Your task to perform on an android device: Search for Italian restaurants on Maps Image 0: 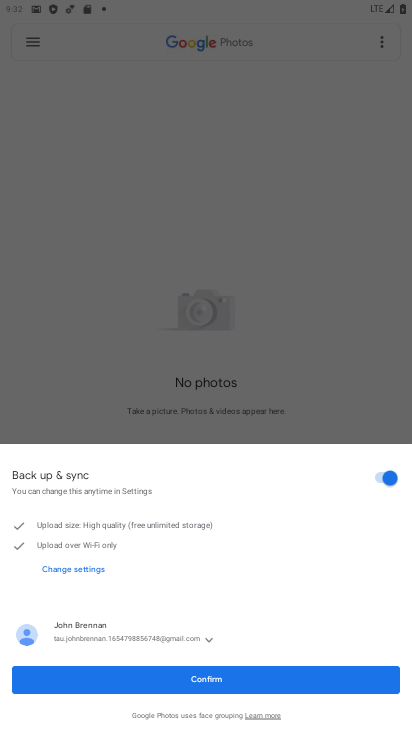
Step 0: press home button
Your task to perform on an android device: Search for Italian restaurants on Maps Image 1: 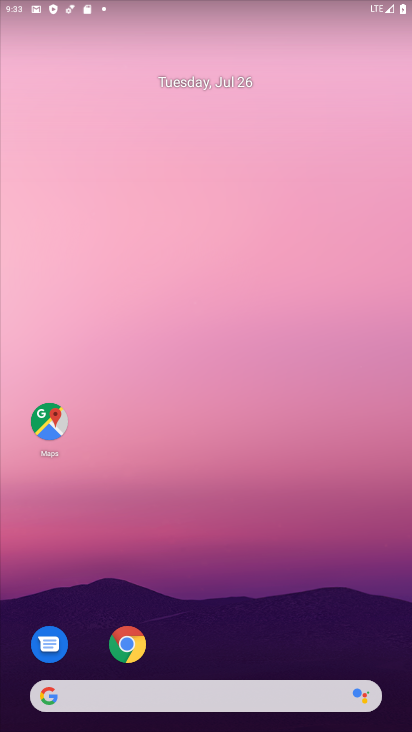
Step 1: click (51, 427)
Your task to perform on an android device: Search for Italian restaurants on Maps Image 2: 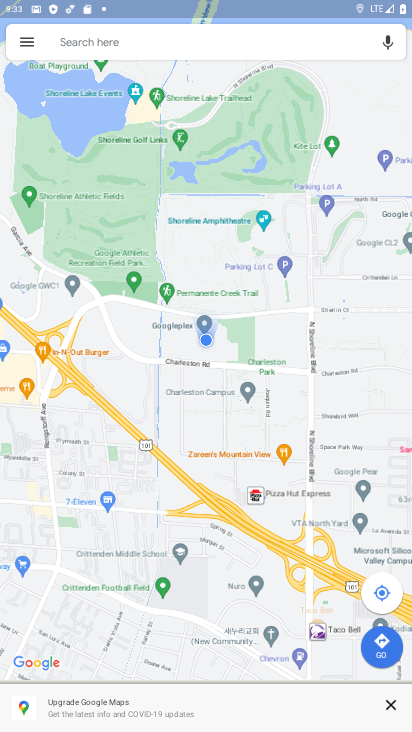
Step 2: click (172, 34)
Your task to perform on an android device: Search for Italian restaurants on Maps Image 3: 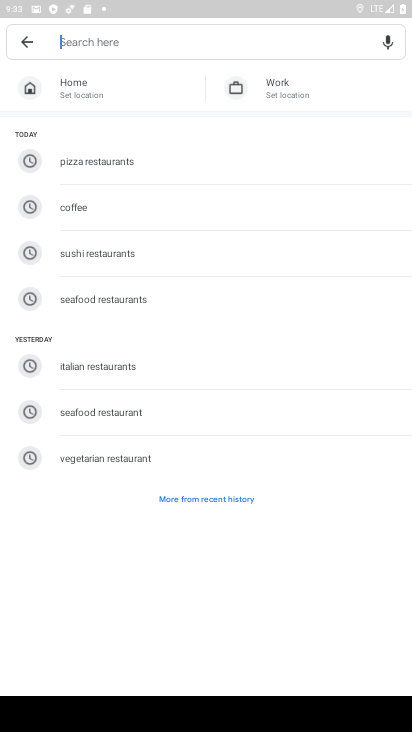
Step 3: click (89, 43)
Your task to perform on an android device: Search for Italian restaurants on Maps Image 4: 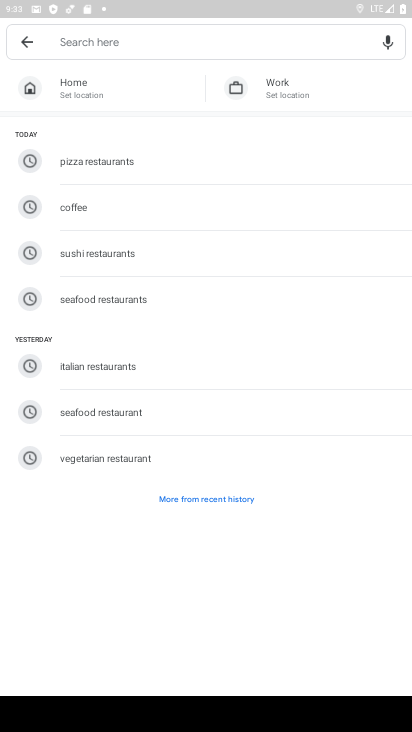
Step 4: type " Italian restaurants"
Your task to perform on an android device: Search for Italian restaurants on Maps Image 5: 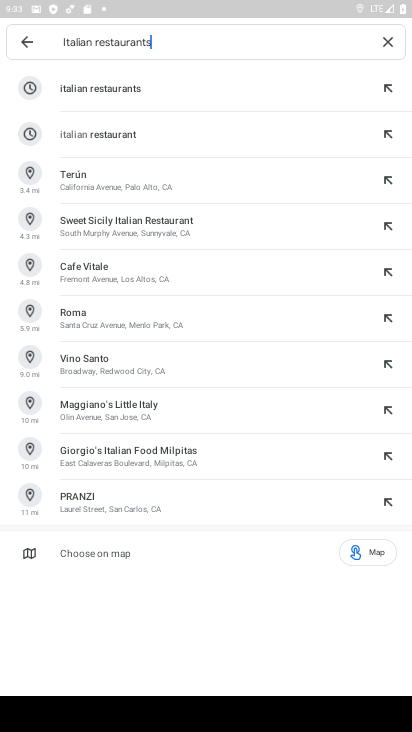
Step 5: click (79, 94)
Your task to perform on an android device: Search for Italian restaurants on Maps Image 6: 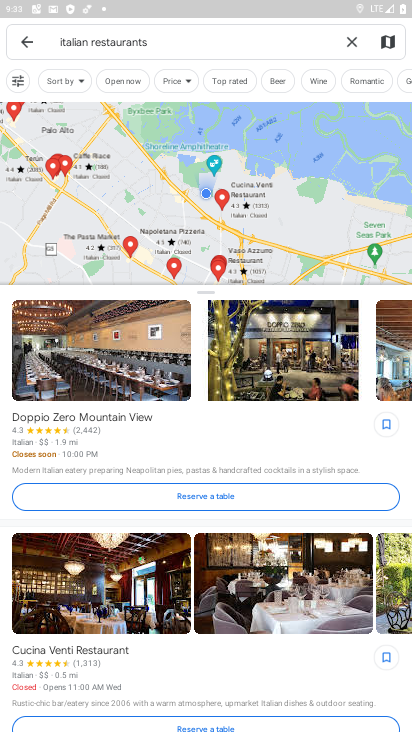
Step 6: task complete